Your task to perform on an android device: Go to Google Image 0: 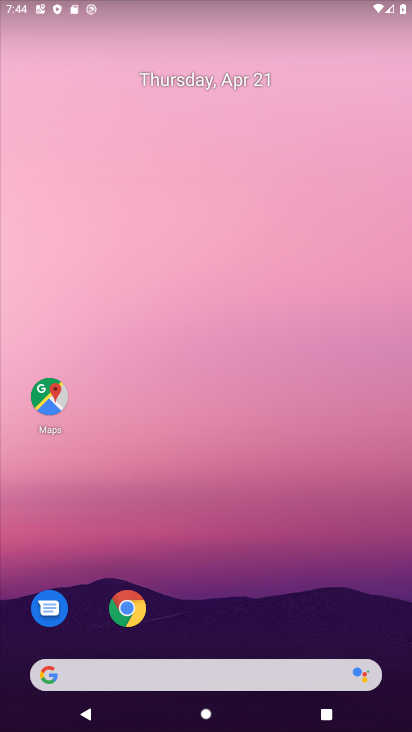
Step 0: click (191, 638)
Your task to perform on an android device: Go to Google Image 1: 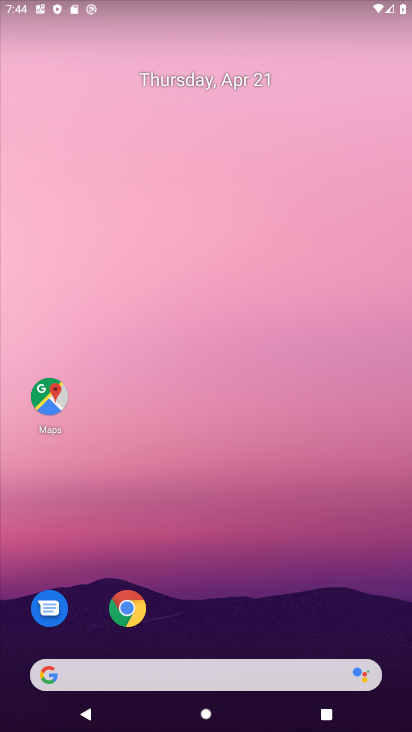
Step 1: click (181, 681)
Your task to perform on an android device: Go to Google Image 2: 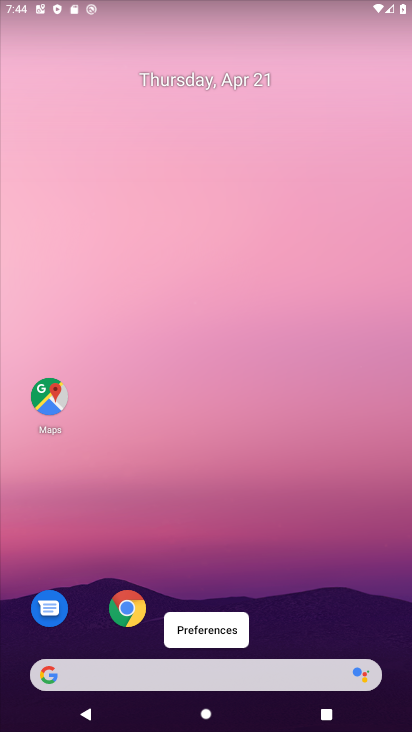
Step 2: click (164, 675)
Your task to perform on an android device: Go to Google Image 3: 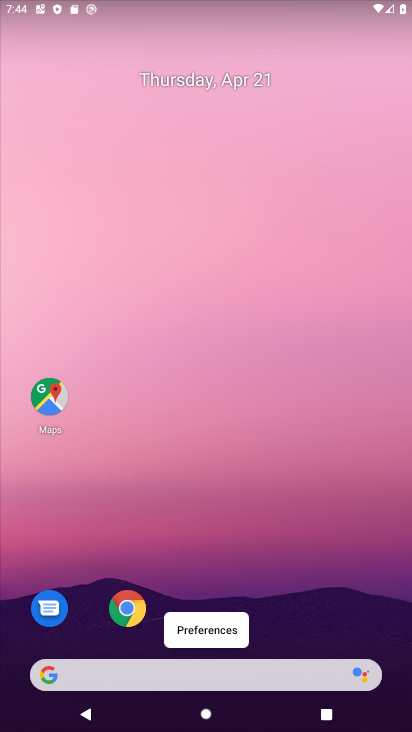
Step 3: click (196, 669)
Your task to perform on an android device: Go to Google Image 4: 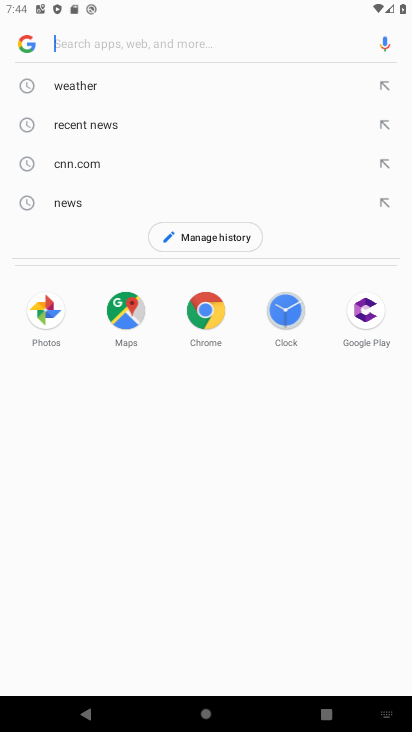
Step 4: click (28, 46)
Your task to perform on an android device: Go to Google Image 5: 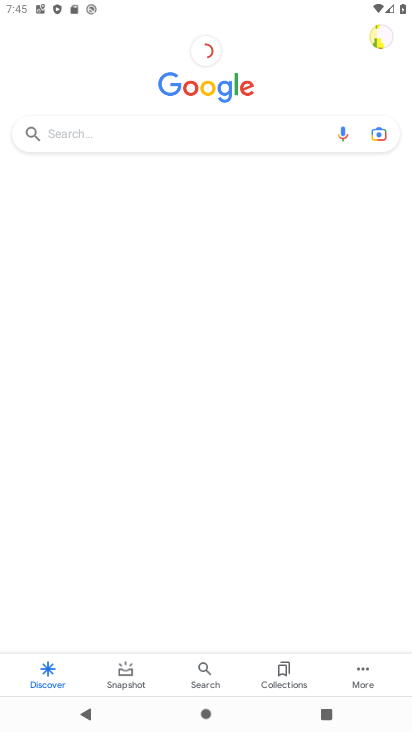
Step 5: task complete